Your task to perform on an android device: turn on priority inbox in the gmail app Image 0: 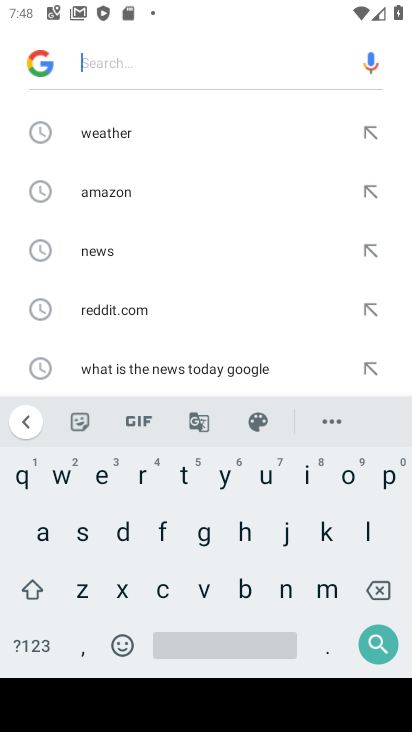
Step 0: press home button
Your task to perform on an android device: turn on priority inbox in the gmail app Image 1: 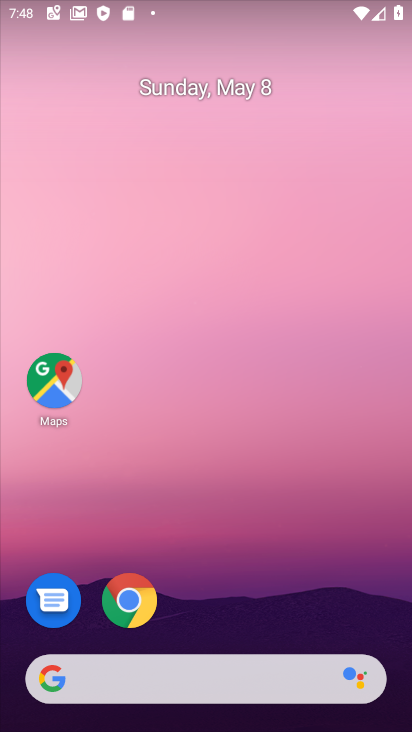
Step 1: drag from (287, 705) to (212, 411)
Your task to perform on an android device: turn on priority inbox in the gmail app Image 2: 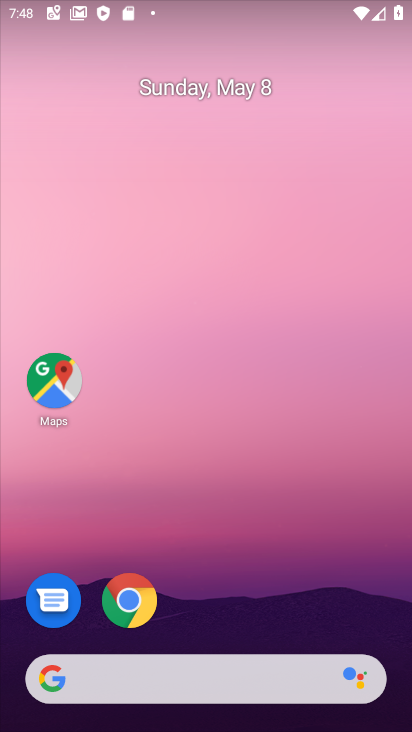
Step 2: drag from (309, 722) to (204, 257)
Your task to perform on an android device: turn on priority inbox in the gmail app Image 3: 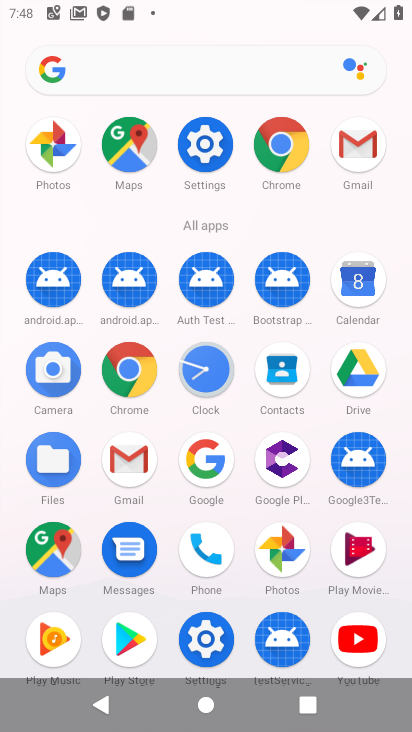
Step 3: click (145, 443)
Your task to perform on an android device: turn on priority inbox in the gmail app Image 4: 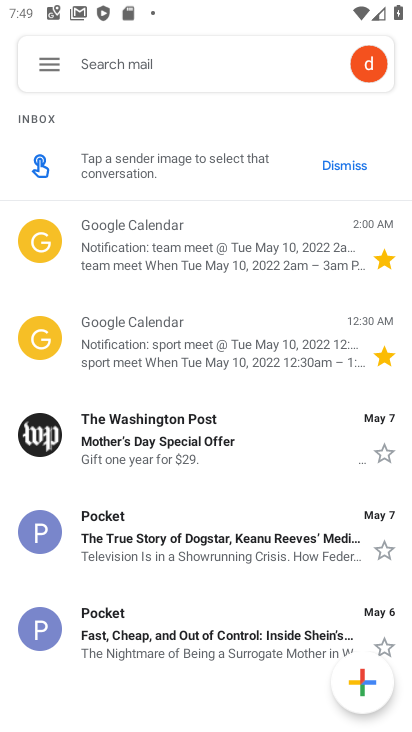
Step 4: click (40, 65)
Your task to perform on an android device: turn on priority inbox in the gmail app Image 5: 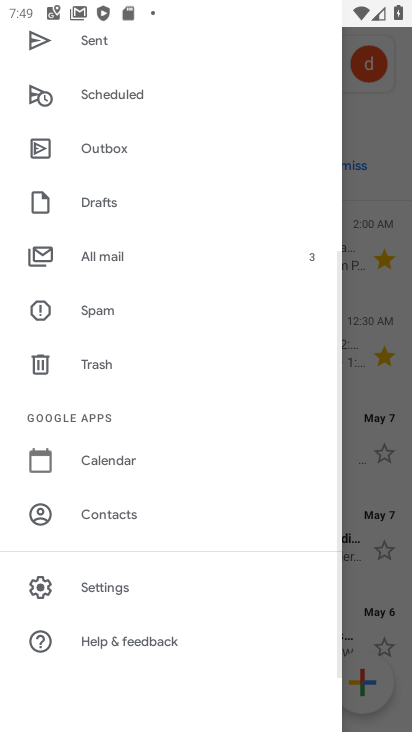
Step 5: click (133, 578)
Your task to perform on an android device: turn on priority inbox in the gmail app Image 6: 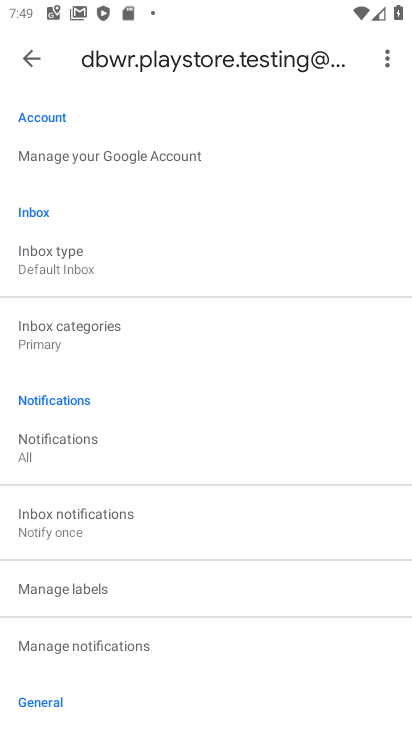
Step 6: click (88, 252)
Your task to perform on an android device: turn on priority inbox in the gmail app Image 7: 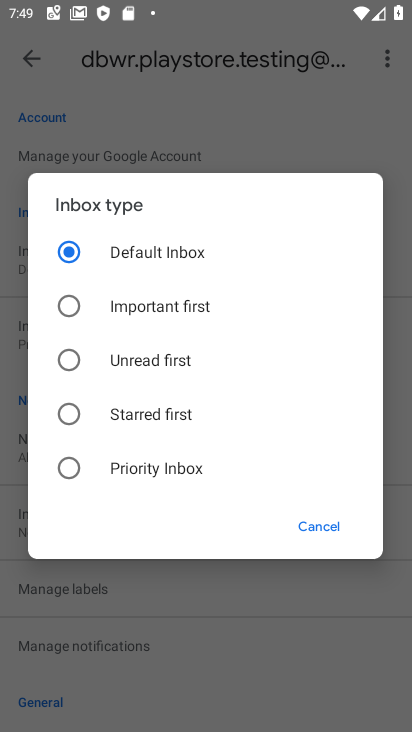
Step 7: click (164, 468)
Your task to perform on an android device: turn on priority inbox in the gmail app Image 8: 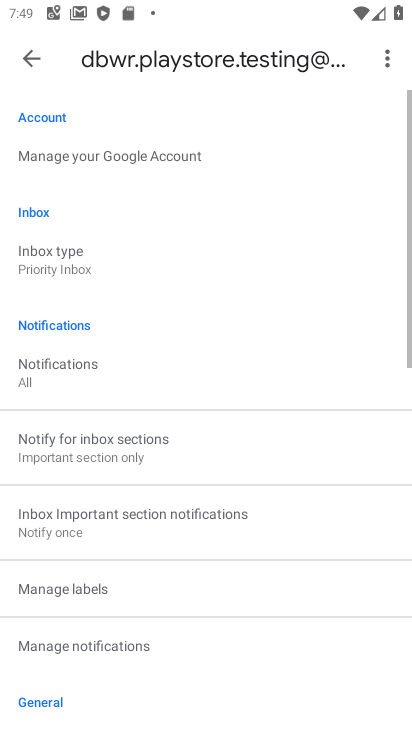
Step 8: task complete